Your task to perform on an android device: remove spam from my inbox in the gmail app Image 0: 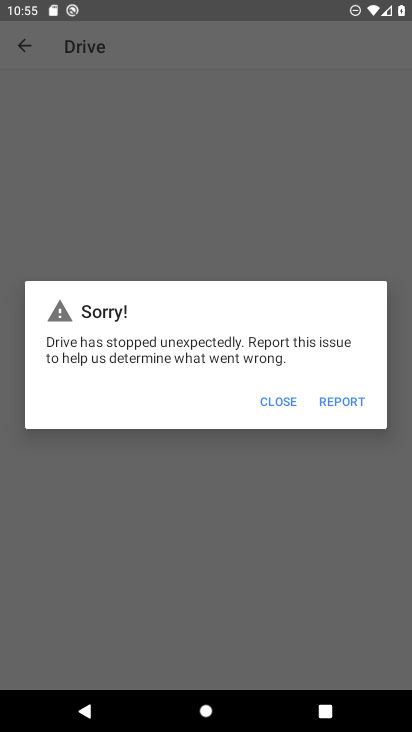
Step 0: press home button
Your task to perform on an android device: remove spam from my inbox in the gmail app Image 1: 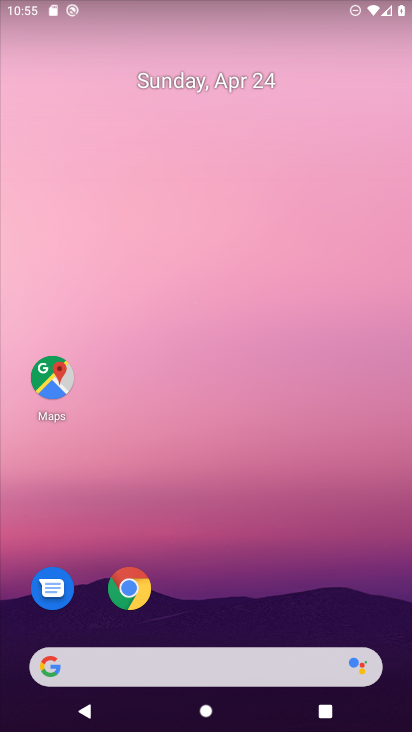
Step 1: drag from (153, 656) to (159, 39)
Your task to perform on an android device: remove spam from my inbox in the gmail app Image 2: 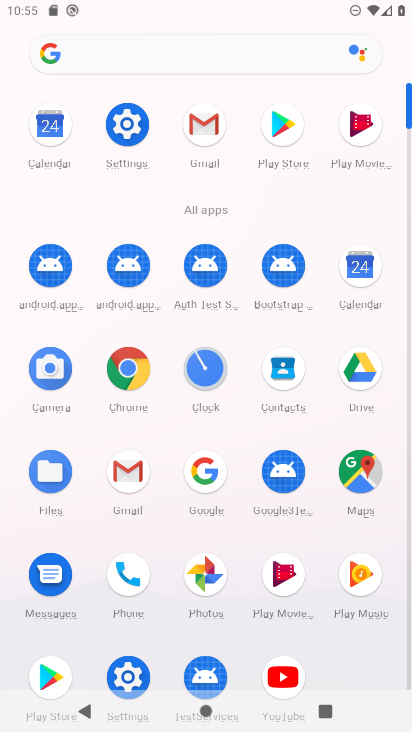
Step 2: click (124, 472)
Your task to perform on an android device: remove spam from my inbox in the gmail app Image 3: 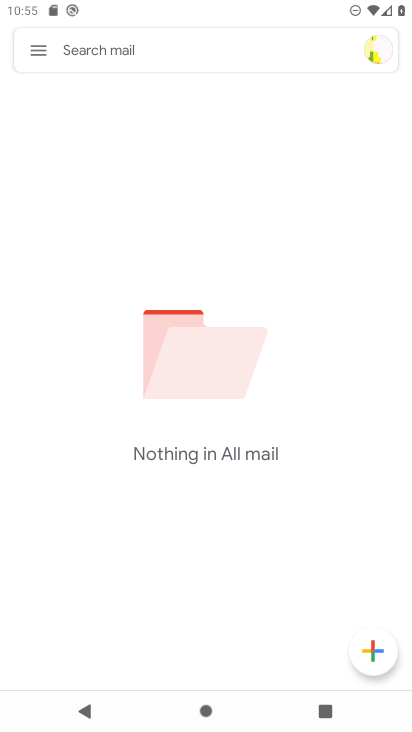
Step 3: click (44, 49)
Your task to perform on an android device: remove spam from my inbox in the gmail app Image 4: 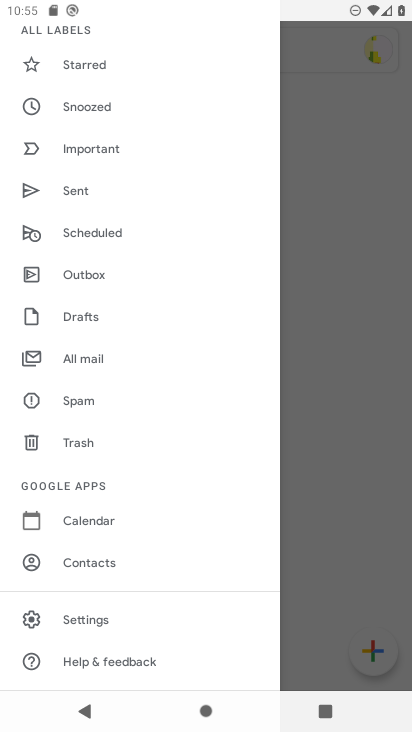
Step 4: click (87, 402)
Your task to perform on an android device: remove spam from my inbox in the gmail app Image 5: 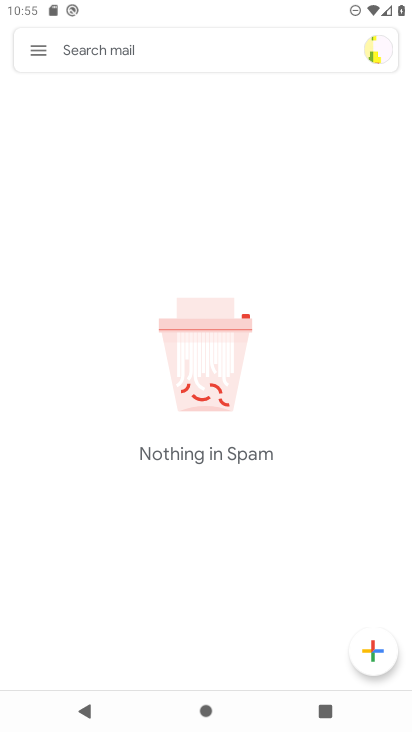
Step 5: task complete